Your task to perform on an android device: Search for usb-a to usb-b on target, select the first entry, and add it to the cart. Image 0: 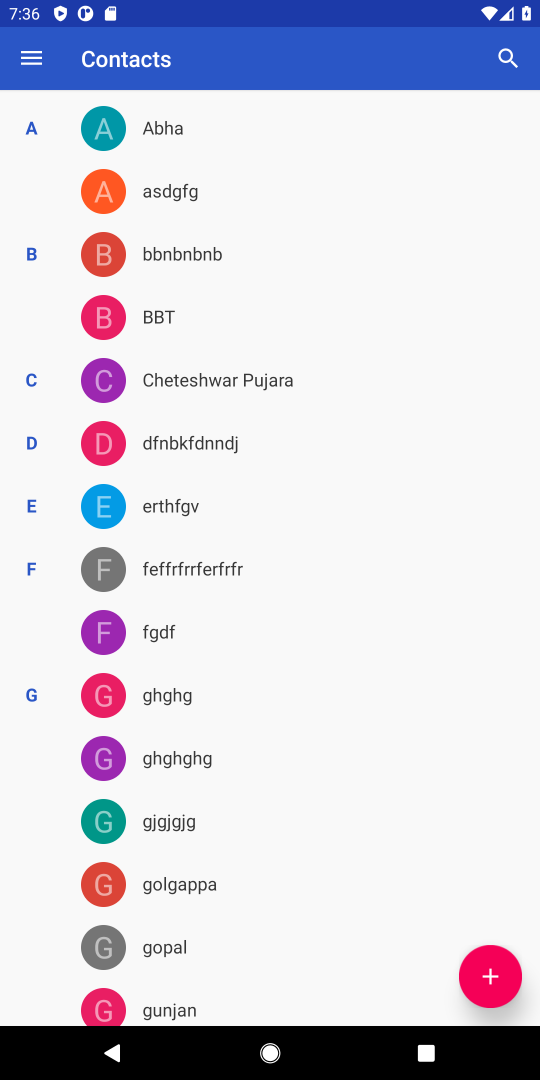
Step 0: press home button
Your task to perform on an android device: Search for usb-a to usb-b on target, select the first entry, and add it to the cart. Image 1: 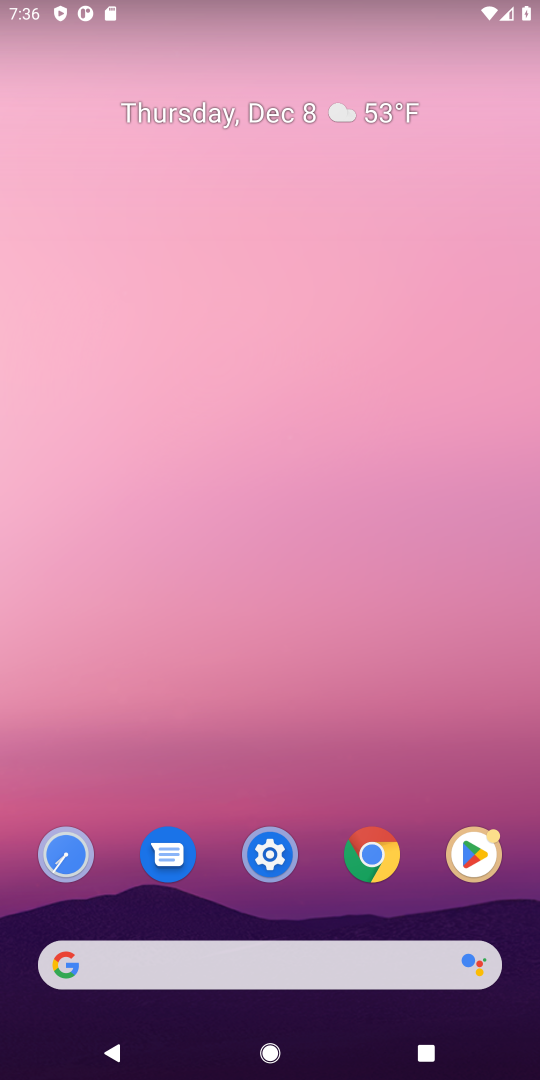
Step 1: click (94, 954)
Your task to perform on an android device: Search for usb-a to usb-b on target, select the first entry, and add it to the cart. Image 2: 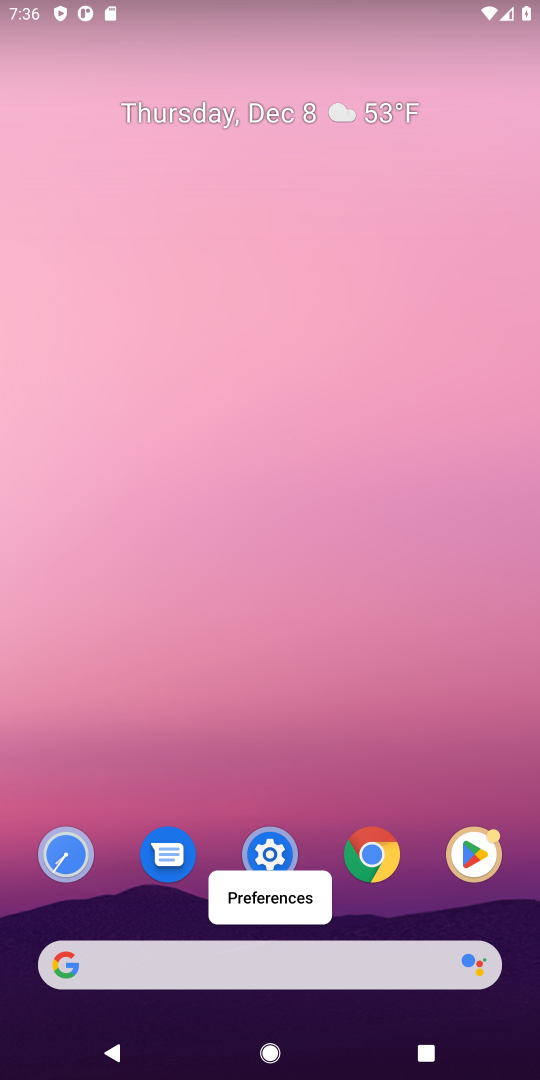
Step 2: click (104, 967)
Your task to perform on an android device: Search for usb-a to usb-b on target, select the first entry, and add it to the cart. Image 3: 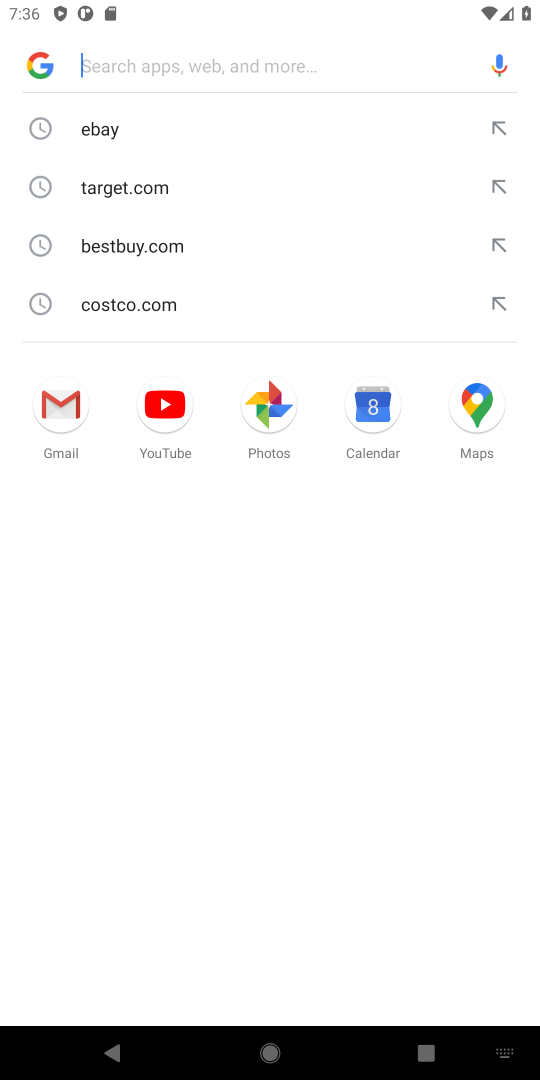
Step 3: press enter
Your task to perform on an android device: Search for usb-a to usb-b on target, select the first entry, and add it to the cart. Image 4: 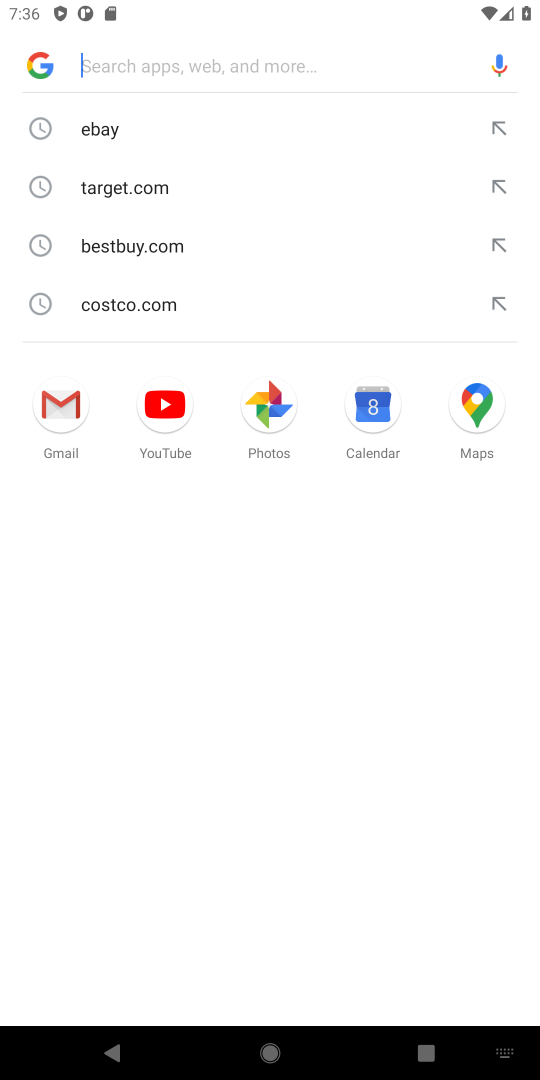
Step 4: type "target"
Your task to perform on an android device: Search for usb-a to usb-b on target, select the first entry, and add it to the cart. Image 5: 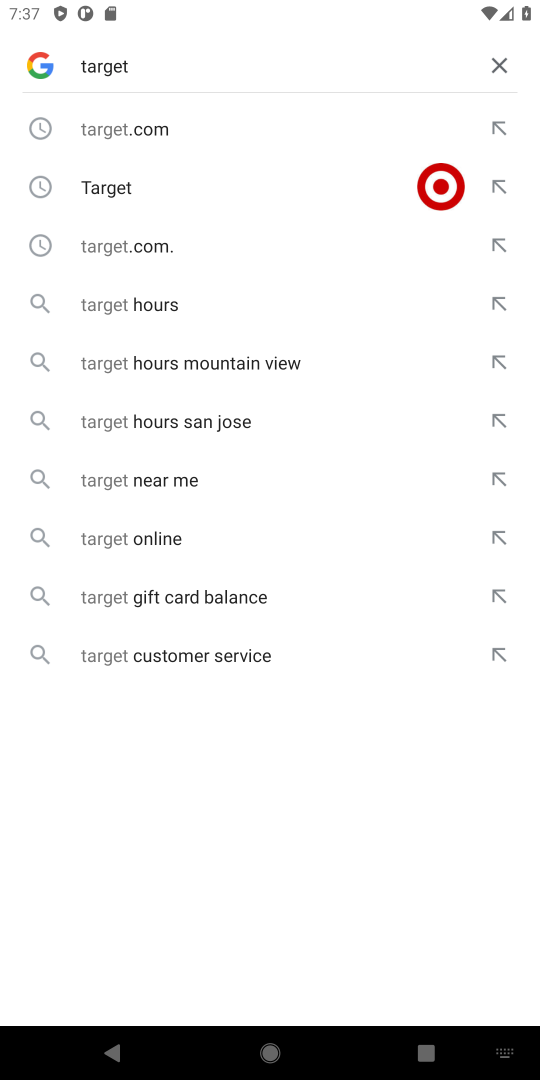
Step 5: press enter
Your task to perform on an android device: Search for usb-a to usb-b on target, select the first entry, and add it to the cart. Image 6: 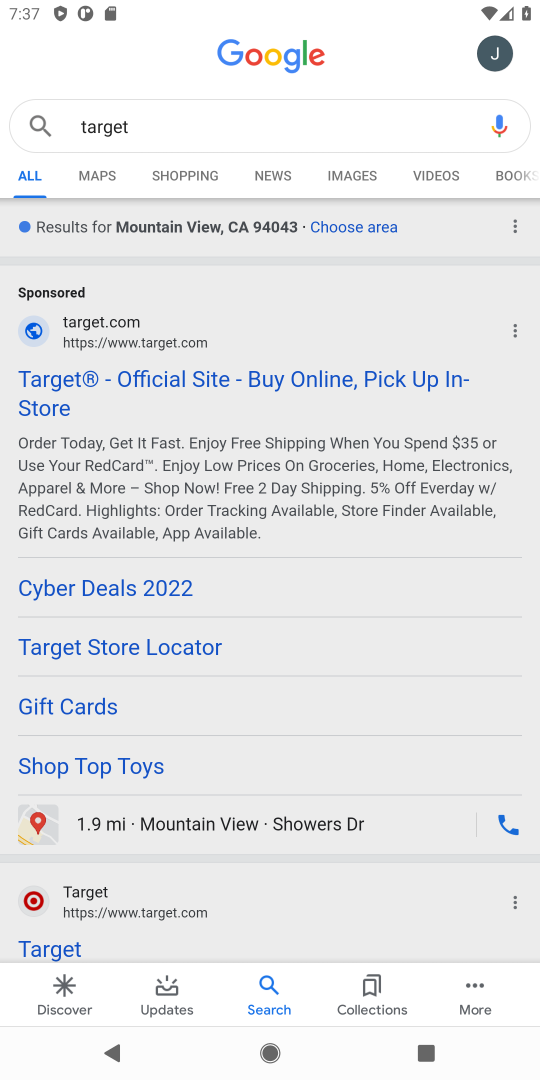
Step 6: click (186, 374)
Your task to perform on an android device: Search for usb-a to usb-b on target, select the first entry, and add it to the cart. Image 7: 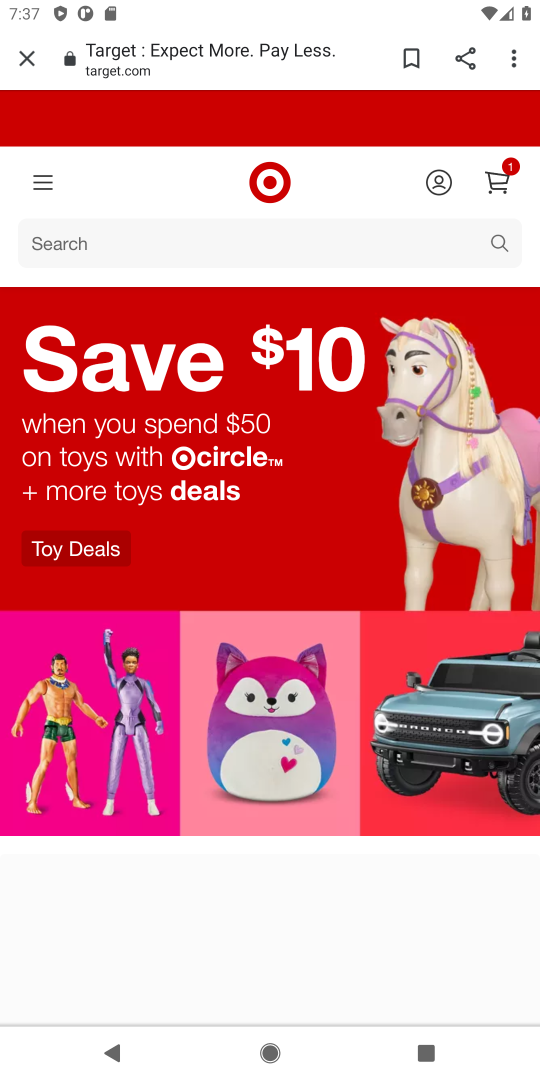
Step 7: click (77, 237)
Your task to perform on an android device: Search for usb-a to usb-b on target, select the first entry, and add it to the cart. Image 8: 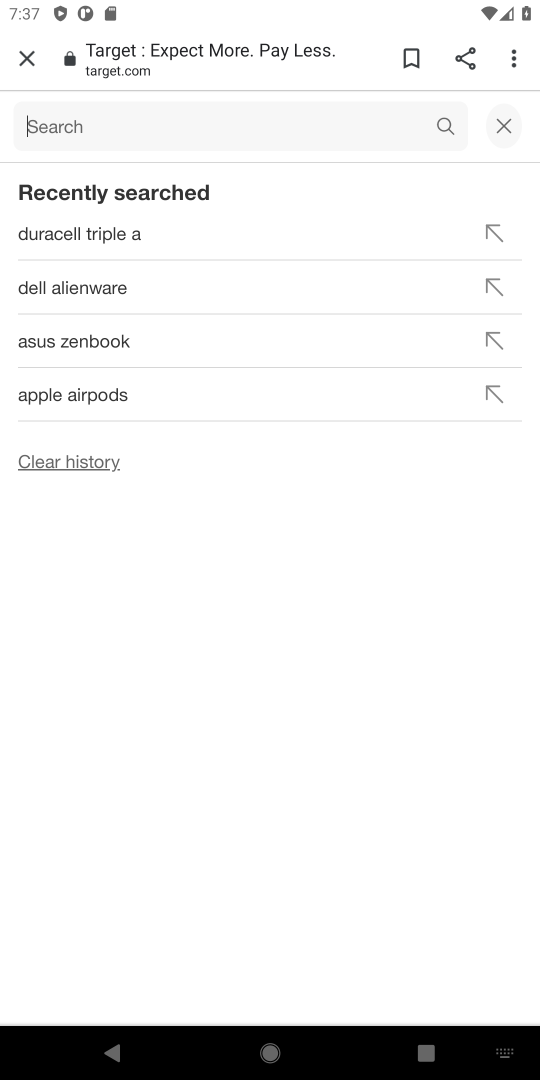
Step 8: type "usb-a to usb-b"
Your task to perform on an android device: Search for usb-a to usb-b on target, select the first entry, and add it to the cart. Image 9: 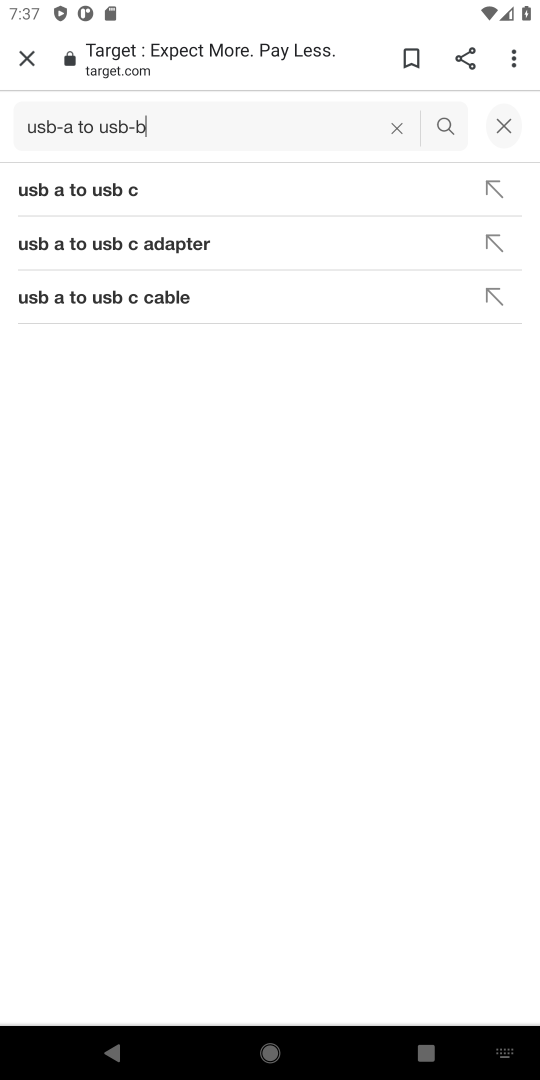
Step 9: press enter
Your task to perform on an android device: Search for usb-a to usb-b on target, select the first entry, and add it to the cart. Image 10: 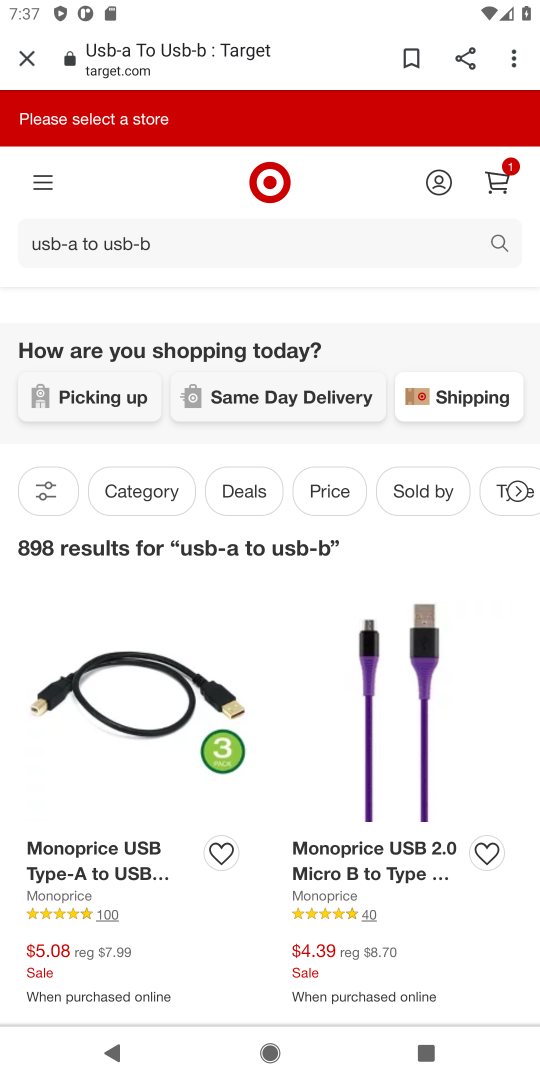
Step 10: drag from (370, 919) to (393, 645)
Your task to perform on an android device: Search for usb-a to usb-b on target, select the first entry, and add it to the cart. Image 11: 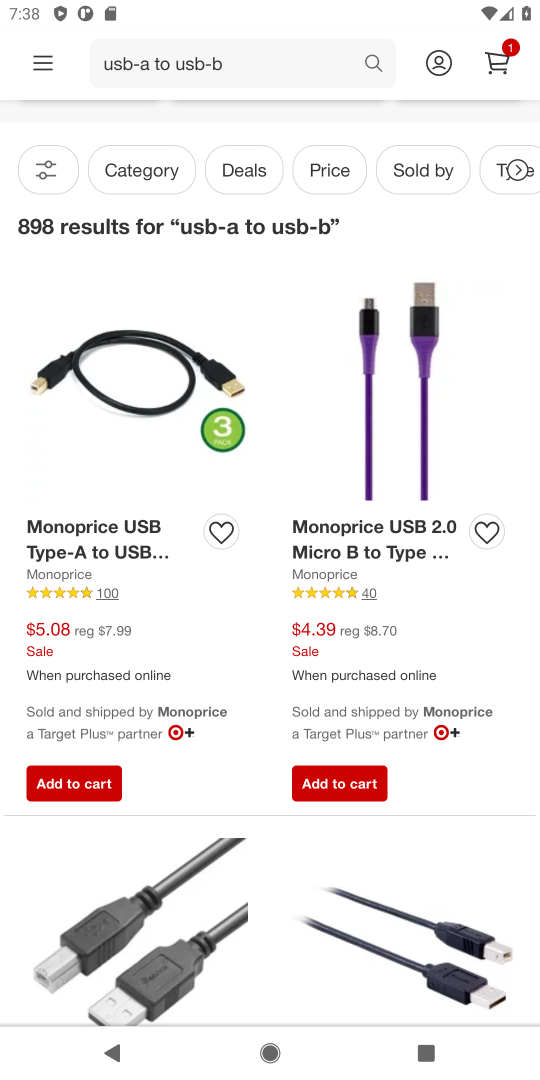
Step 11: drag from (350, 947) to (414, 560)
Your task to perform on an android device: Search for usb-a to usb-b on target, select the first entry, and add it to the cart. Image 12: 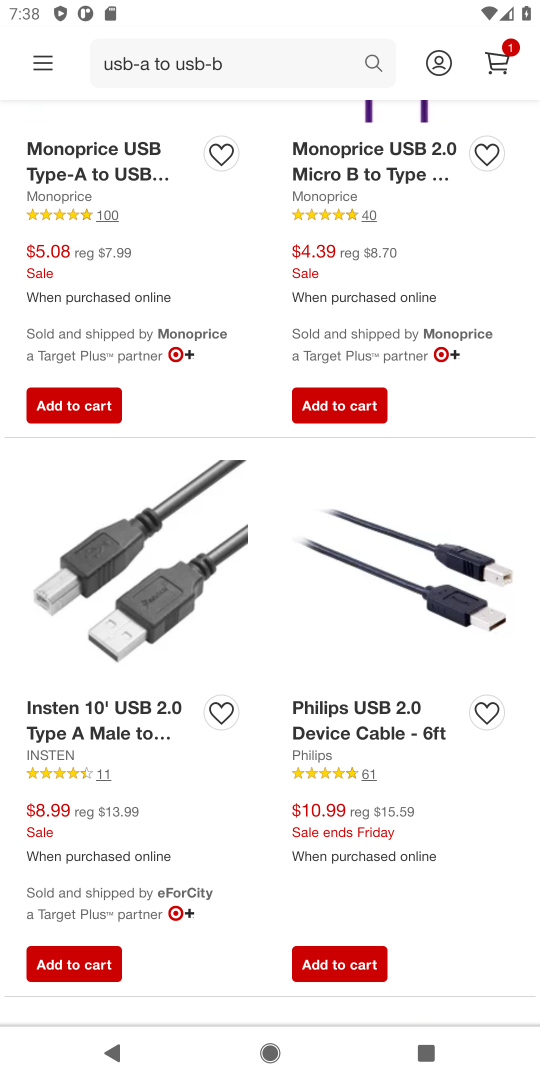
Step 12: click (60, 962)
Your task to perform on an android device: Search for usb-a to usb-b on target, select the first entry, and add it to the cart. Image 13: 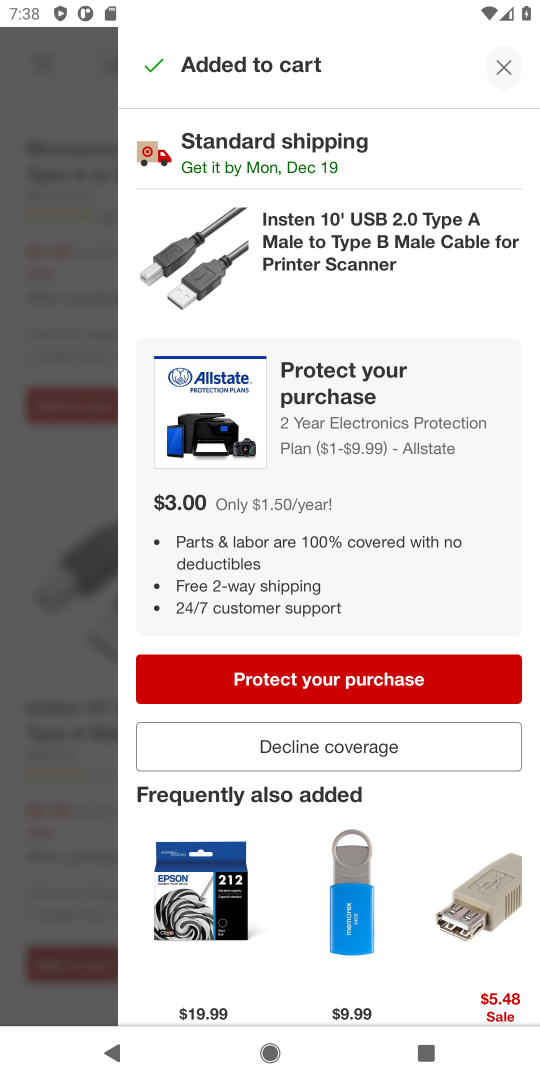
Step 13: task complete